Your task to perform on an android device: Go to Maps Image 0: 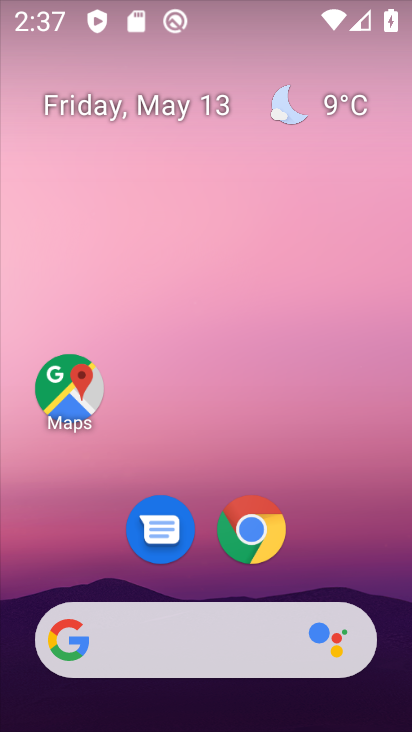
Step 0: click (74, 403)
Your task to perform on an android device: Go to Maps Image 1: 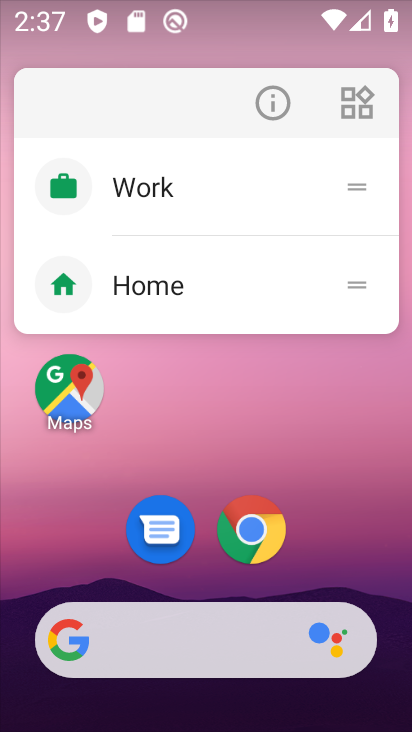
Step 1: click (74, 402)
Your task to perform on an android device: Go to Maps Image 2: 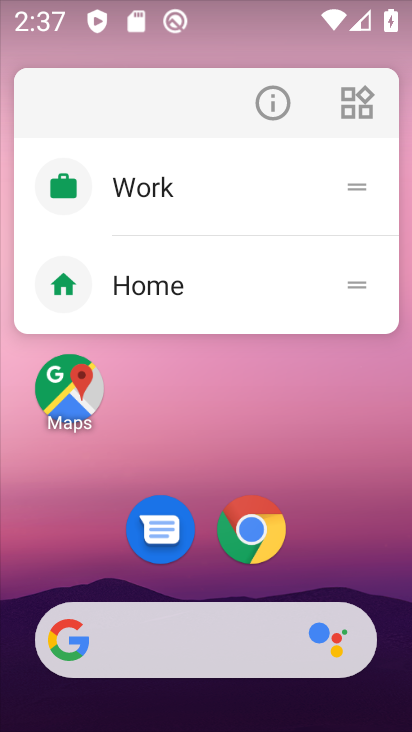
Step 2: click (74, 402)
Your task to perform on an android device: Go to Maps Image 3: 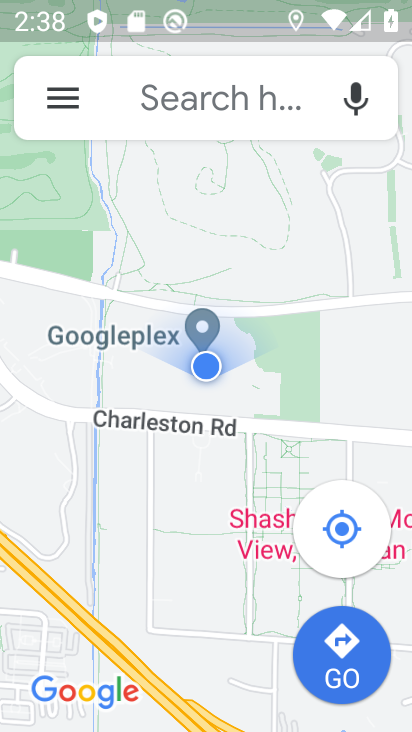
Step 3: task complete